Your task to perform on an android device: Open maps Image 0: 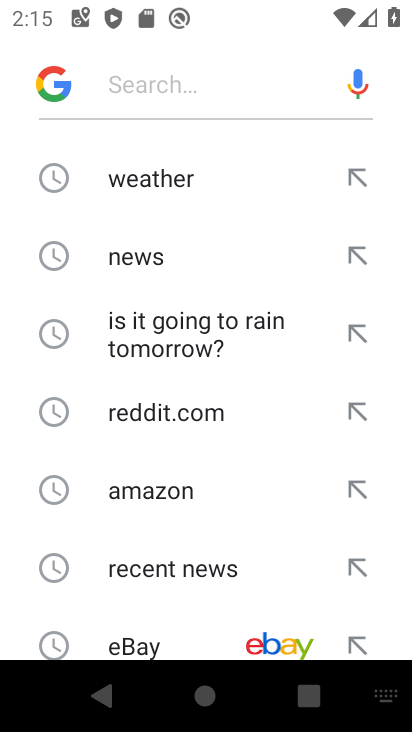
Step 0: press home button
Your task to perform on an android device: Open maps Image 1: 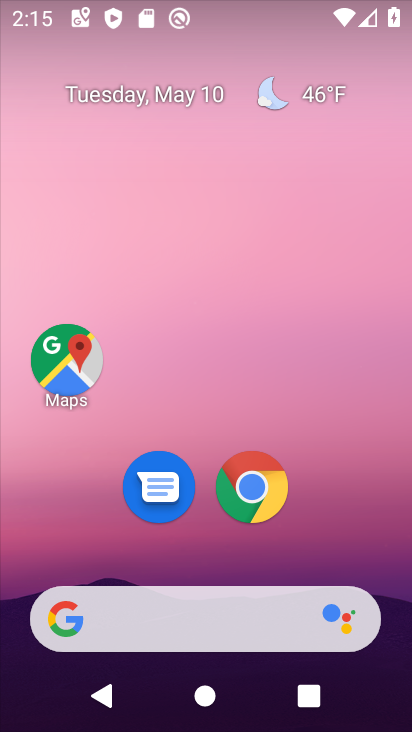
Step 1: drag from (321, 476) to (336, 168)
Your task to perform on an android device: Open maps Image 2: 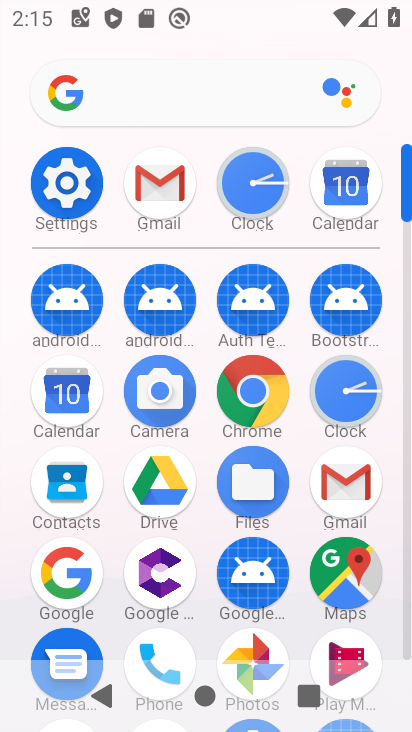
Step 2: click (341, 568)
Your task to perform on an android device: Open maps Image 3: 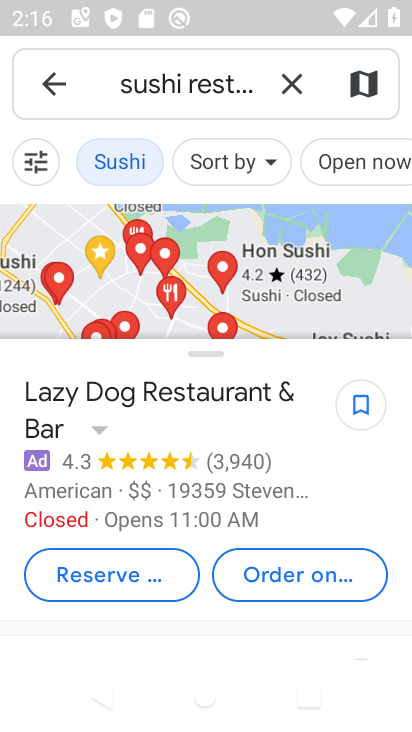
Step 3: task complete